Your task to perform on an android device: Search for "razer blade" on amazon, select the first entry, and add it to the cart. Image 0: 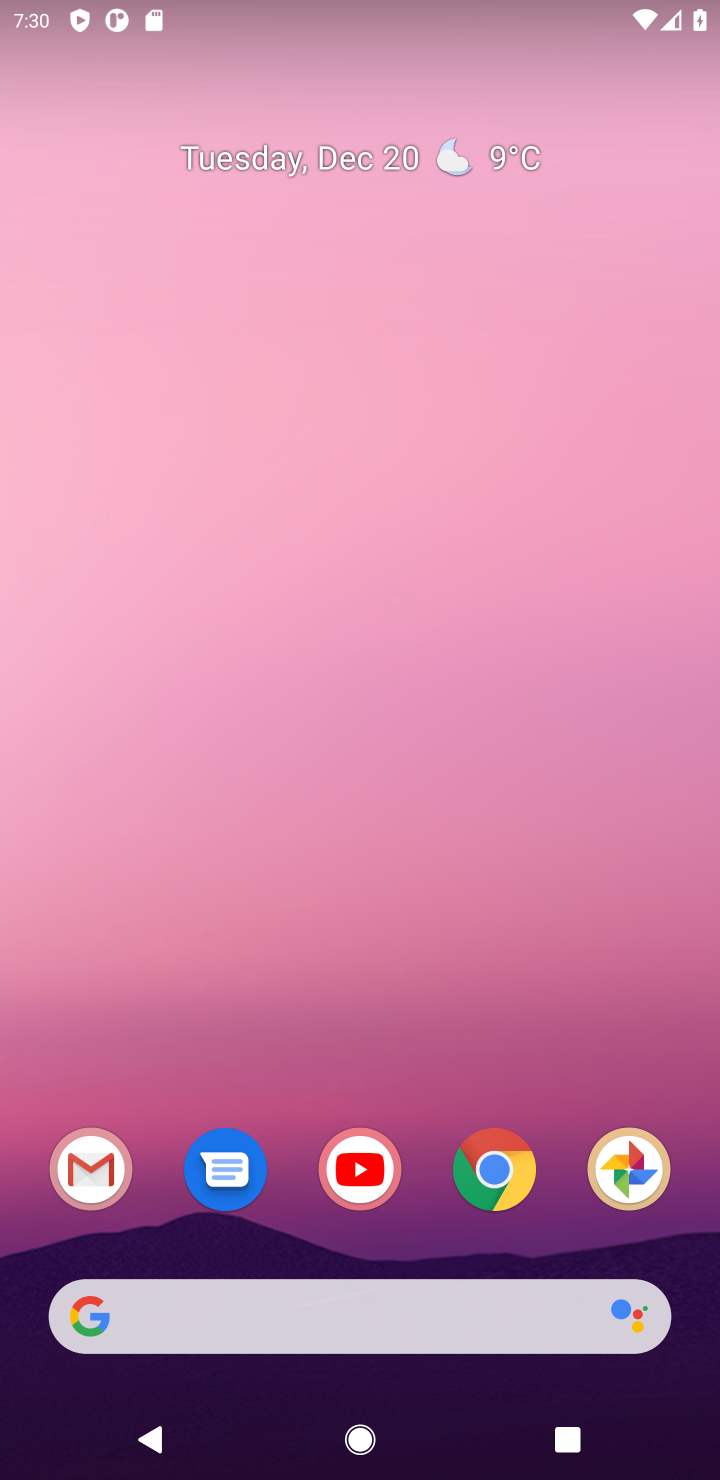
Step 0: click (510, 1140)
Your task to perform on an android device: Search for "razer blade" on amazon, select the first entry, and add it to the cart. Image 1: 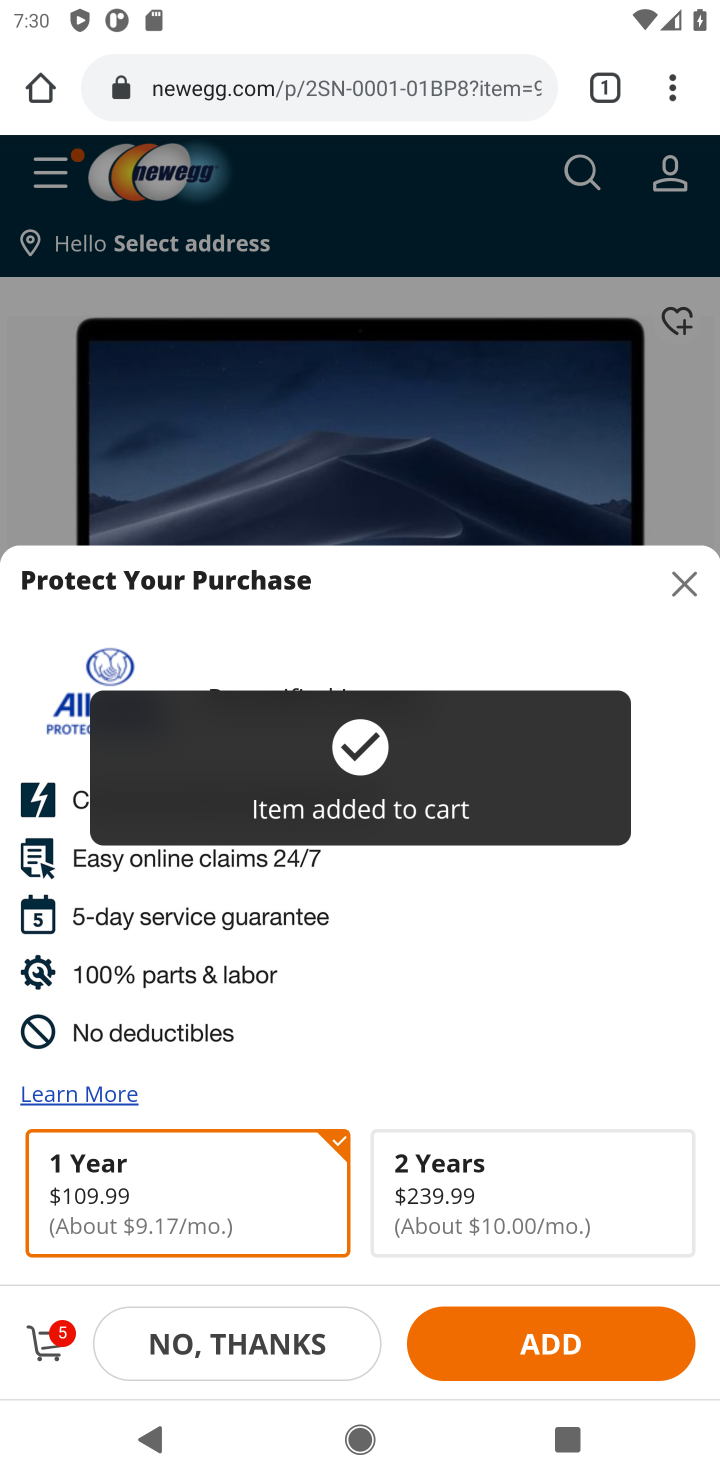
Step 1: click (234, 78)
Your task to perform on an android device: Search for "razer blade" on amazon, select the first entry, and add it to the cart. Image 2: 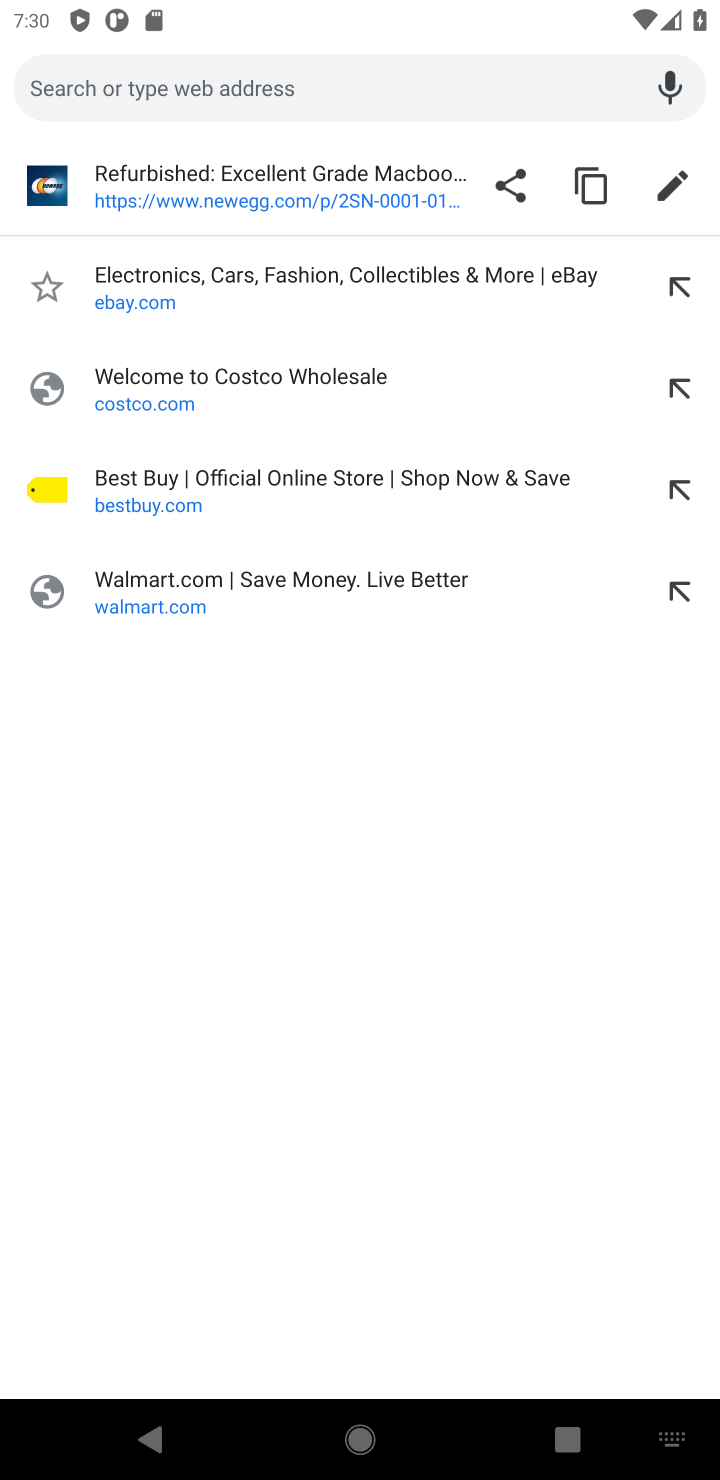
Step 2: type "amazon"
Your task to perform on an android device: Search for "razer blade" on amazon, select the first entry, and add it to the cart. Image 3: 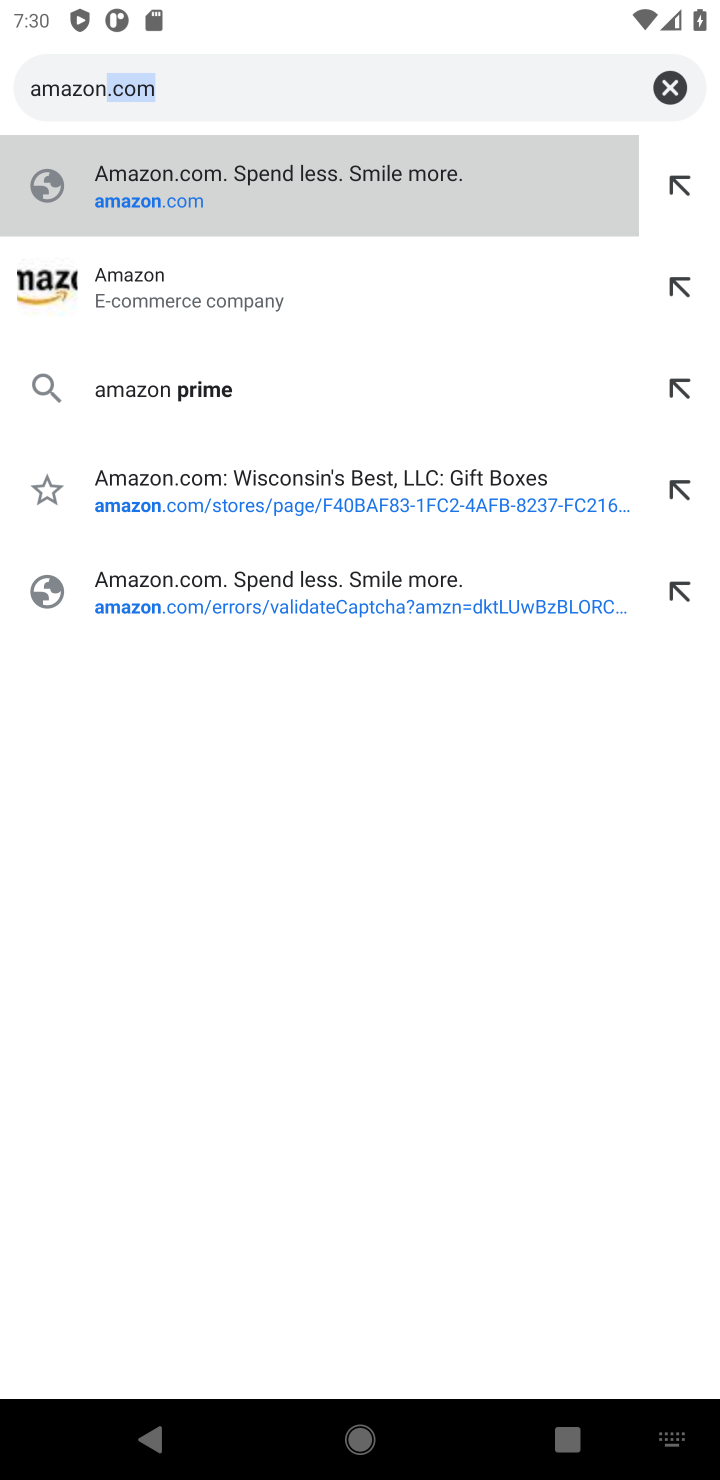
Step 3: click (137, 191)
Your task to perform on an android device: Search for "razer blade" on amazon, select the first entry, and add it to the cart. Image 4: 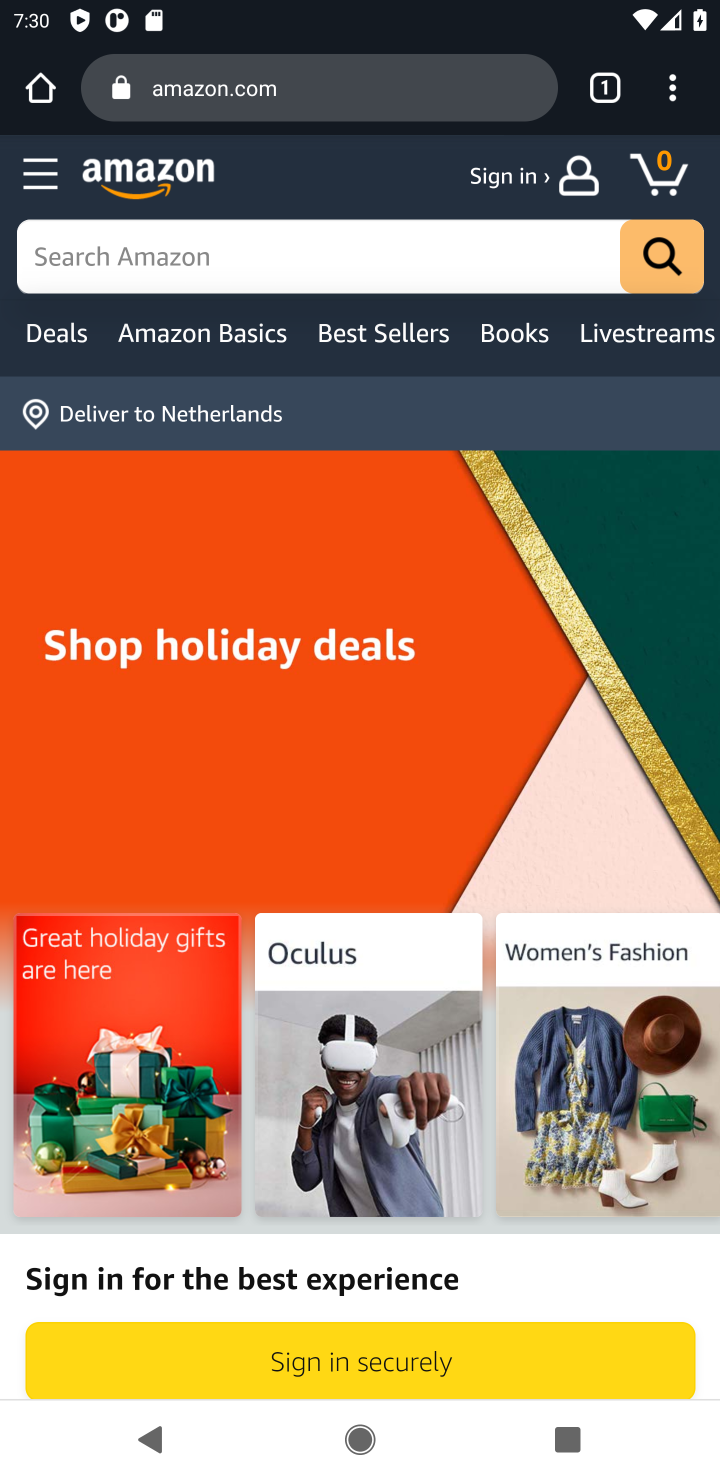
Step 4: click (302, 278)
Your task to perform on an android device: Search for "razer blade" on amazon, select the first entry, and add it to the cart. Image 5: 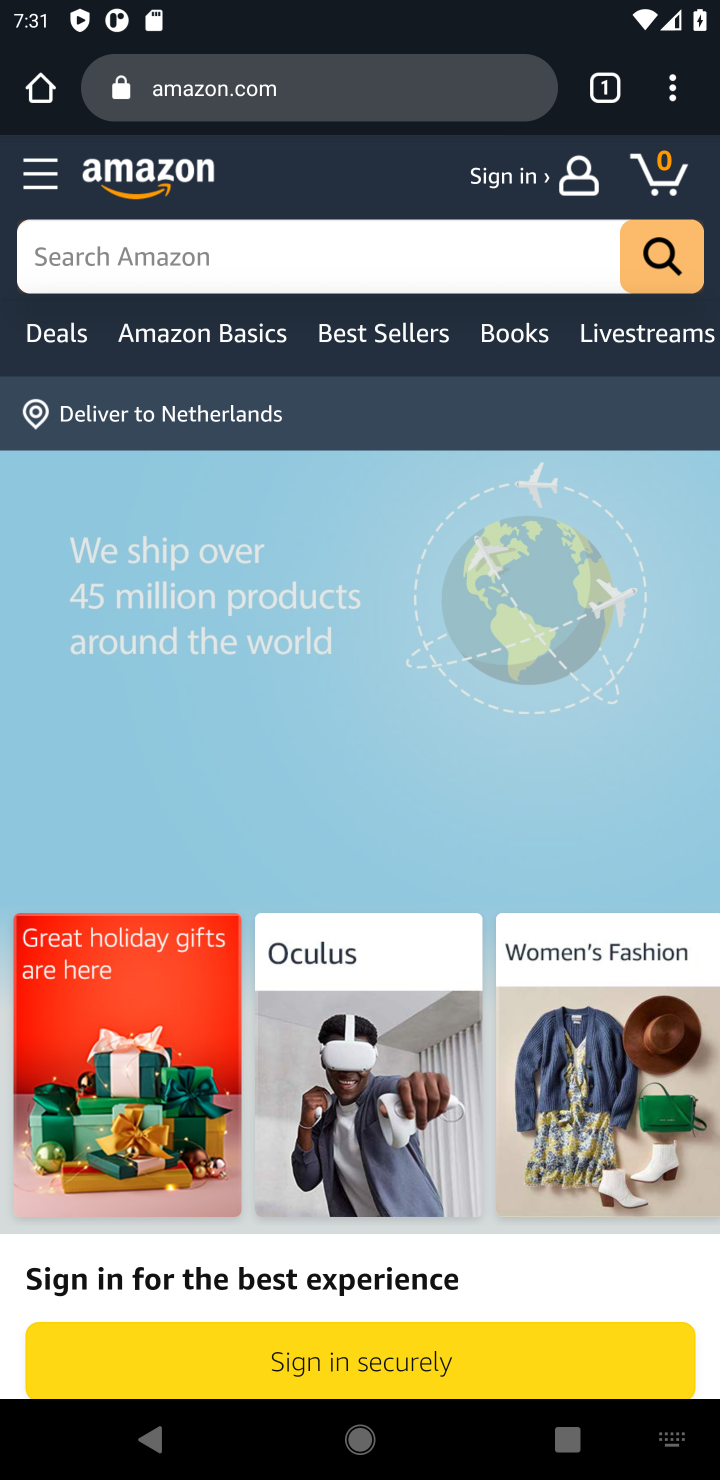
Step 5: type "razer blade"
Your task to perform on an android device: Search for "razer blade" on amazon, select the first entry, and add it to the cart. Image 6: 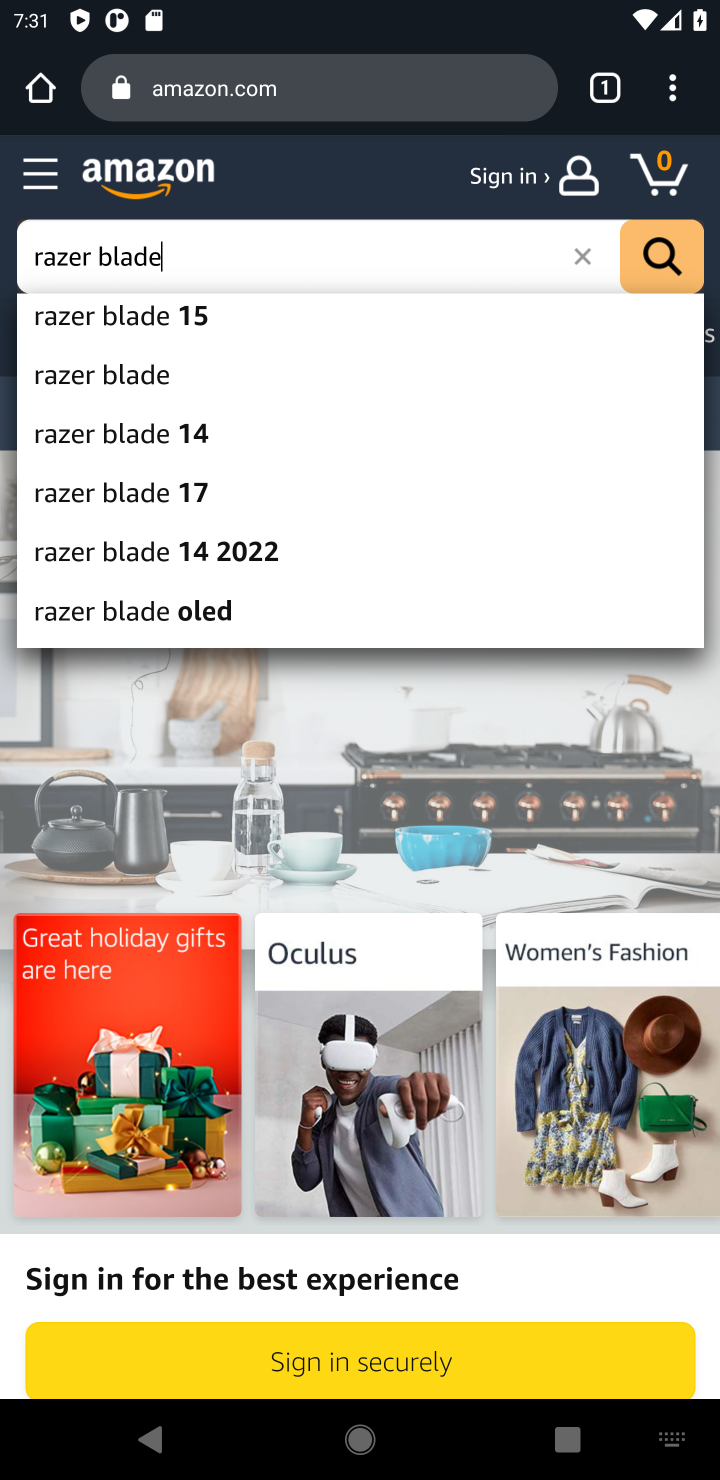
Step 6: click (649, 255)
Your task to perform on an android device: Search for "razer blade" on amazon, select the first entry, and add it to the cart. Image 7: 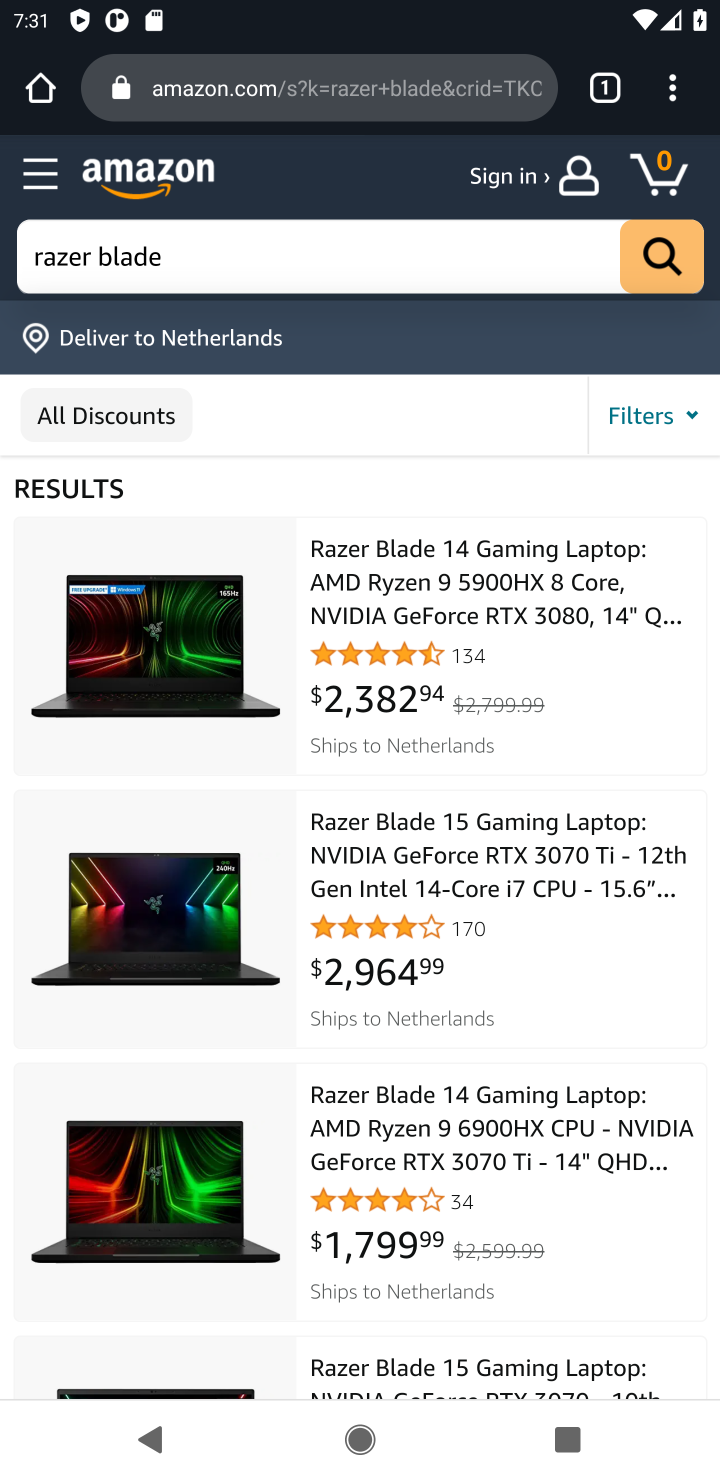
Step 7: click (430, 592)
Your task to perform on an android device: Search for "razer blade" on amazon, select the first entry, and add it to the cart. Image 8: 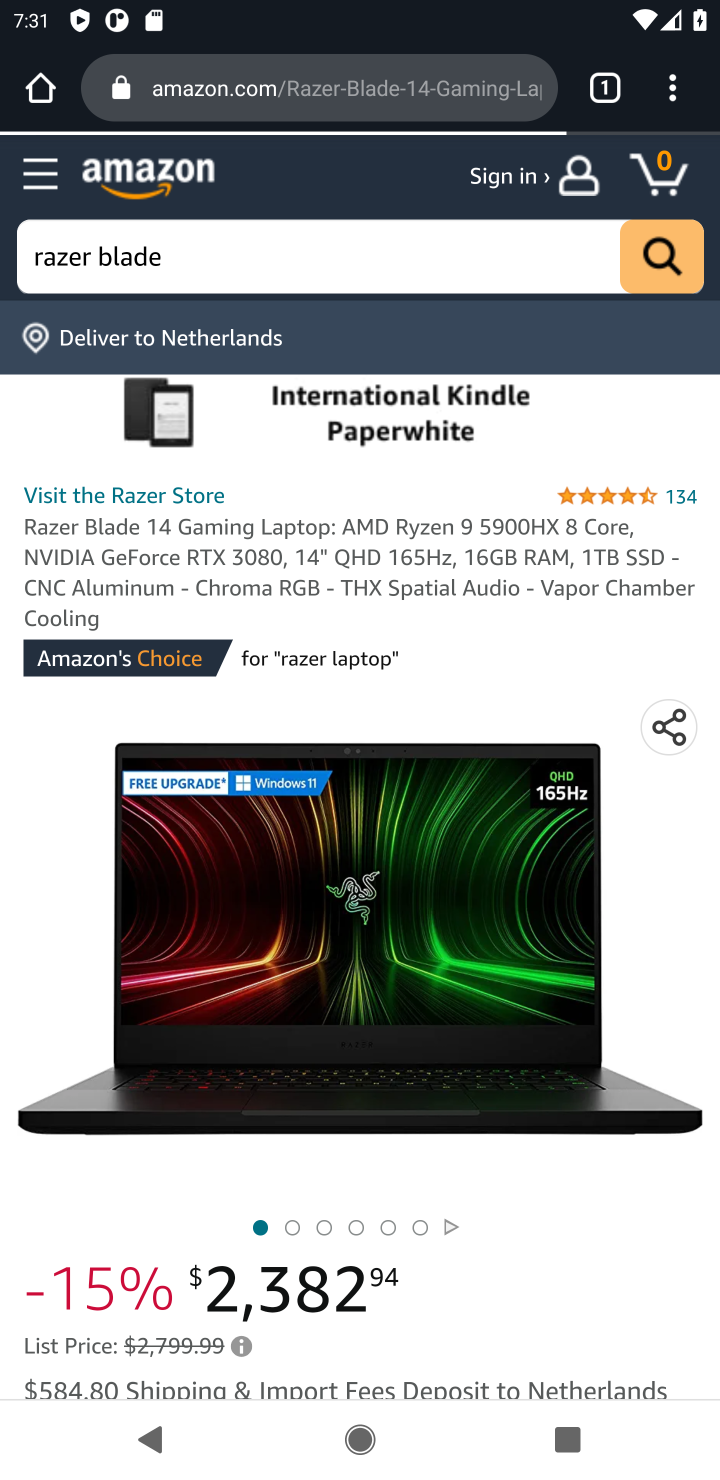
Step 8: drag from (564, 1207) to (429, 594)
Your task to perform on an android device: Search for "razer blade" on amazon, select the first entry, and add it to the cart. Image 9: 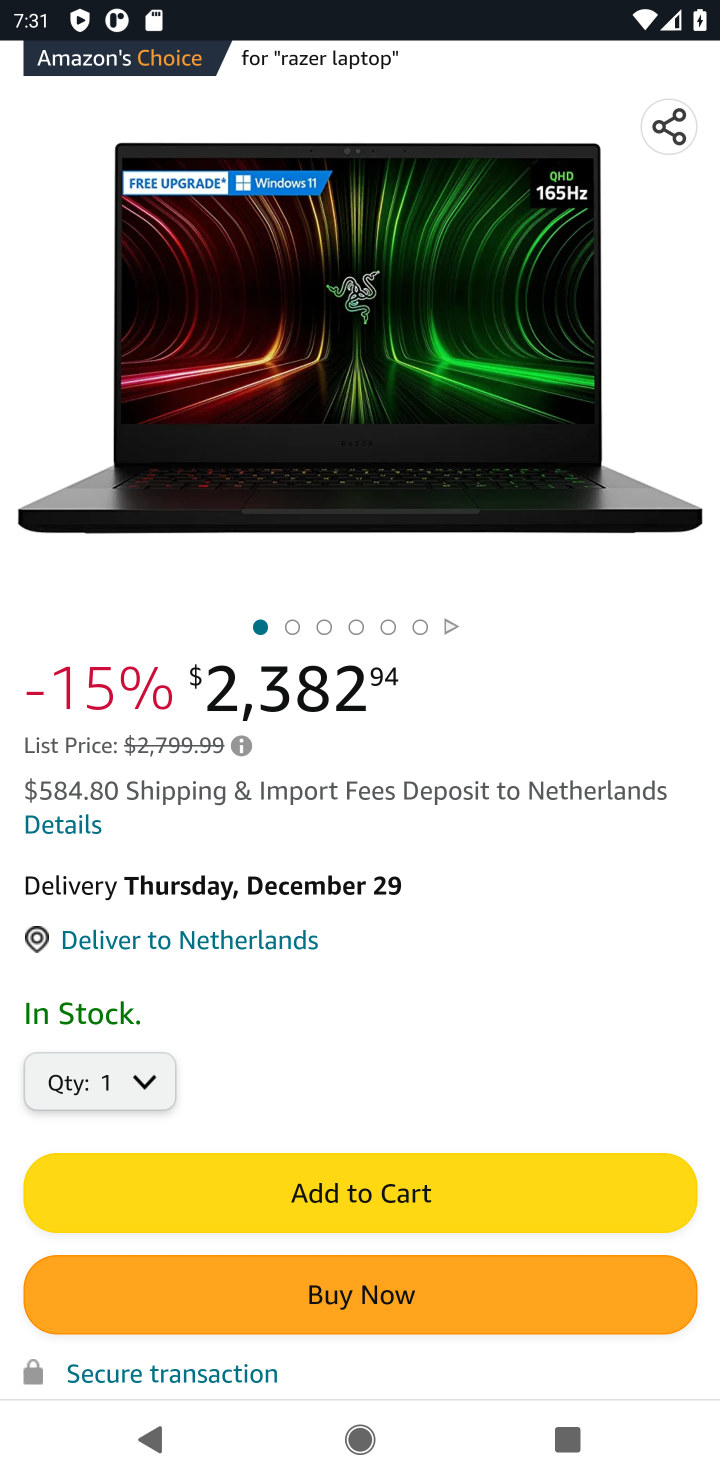
Step 9: click (565, 1186)
Your task to perform on an android device: Search for "razer blade" on amazon, select the first entry, and add it to the cart. Image 10: 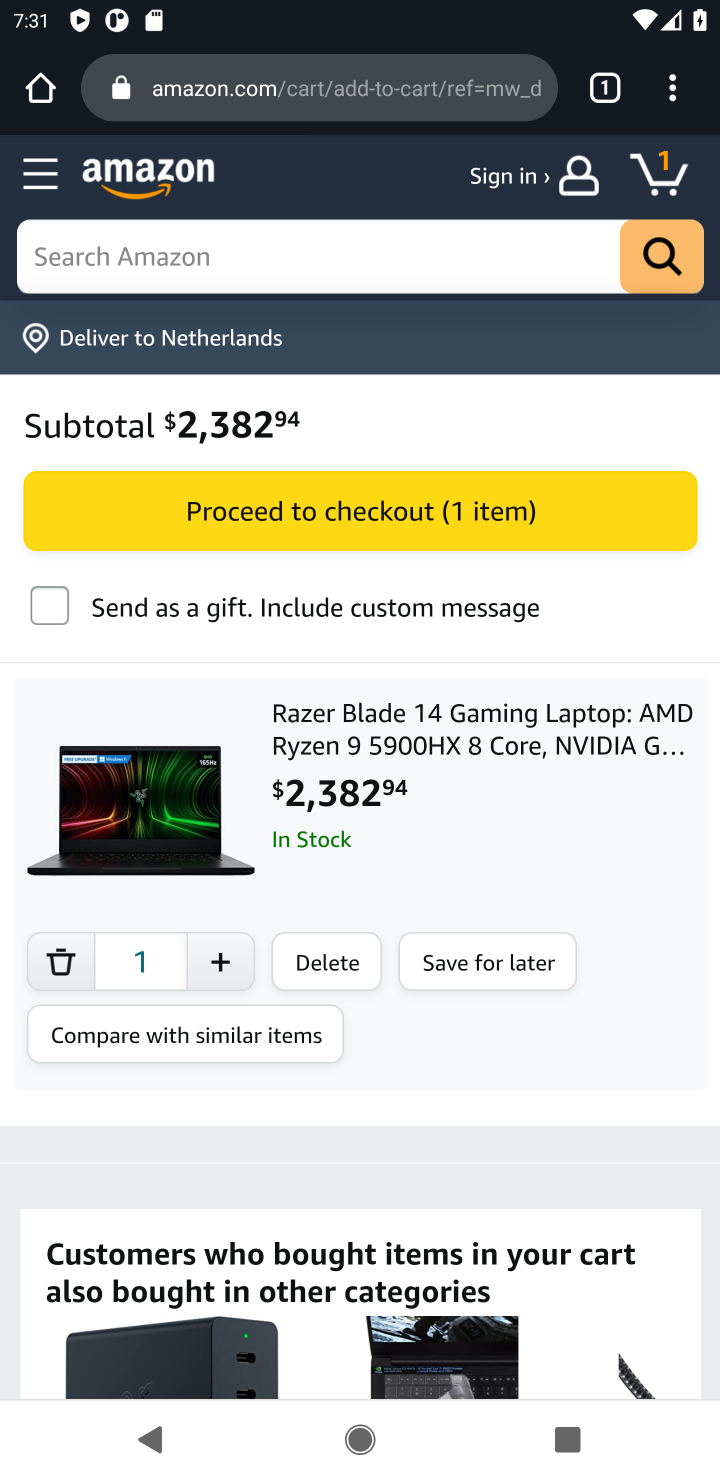
Step 10: task complete